Your task to perform on an android device: turn off location history Image 0: 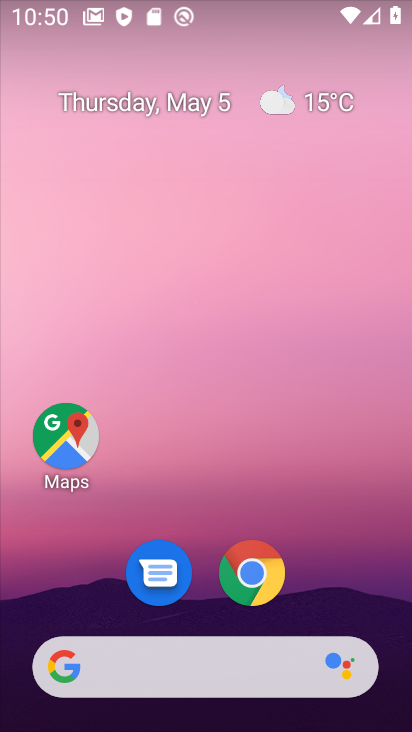
Step 0: drag from (74, 642) to (235, 0)
Your task to perform on an android device: turn off location history Image 1: 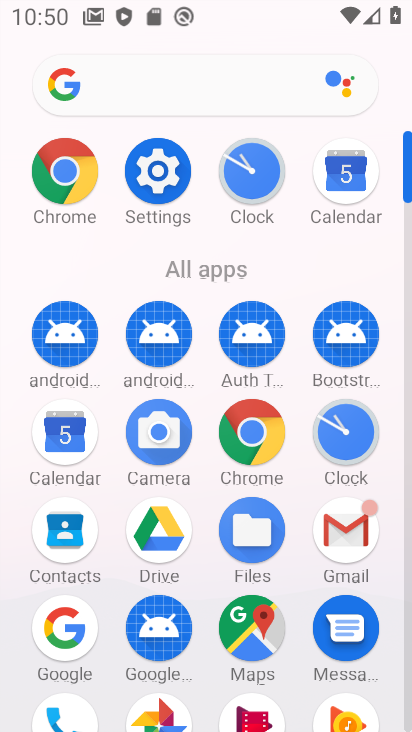
Step 1: drag from (170, 681) to (239, 317)
Your task to perform on an android device: turn off location history Image 2: 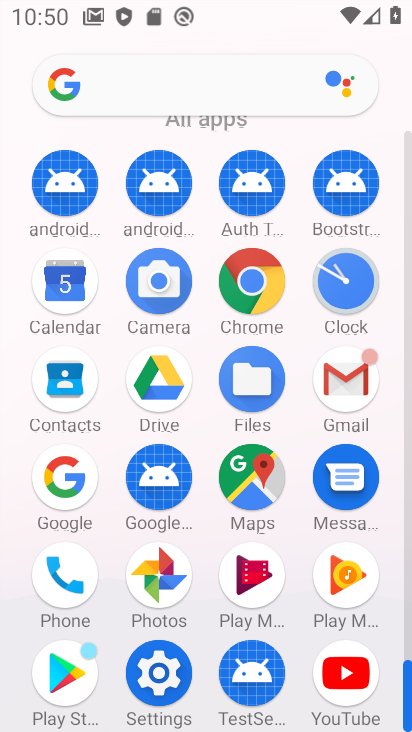
Step 2: click (166, 666)
Your task to perform on an android device: turn off location history Image 3: 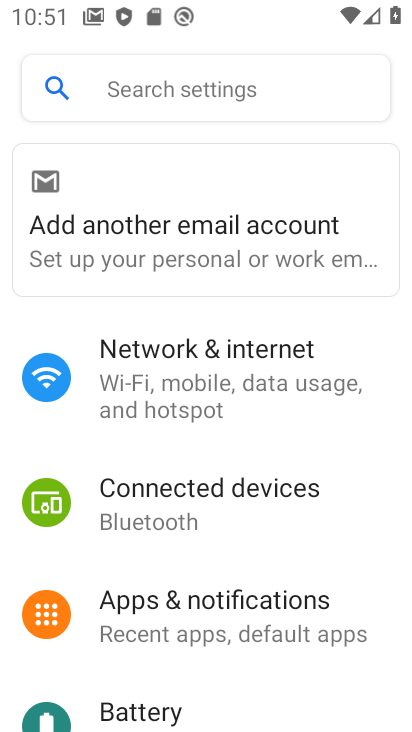
Step 3: drag from (179, 676) to (320, 191)
Your task to perform on an android device: turn off location history Image 4: 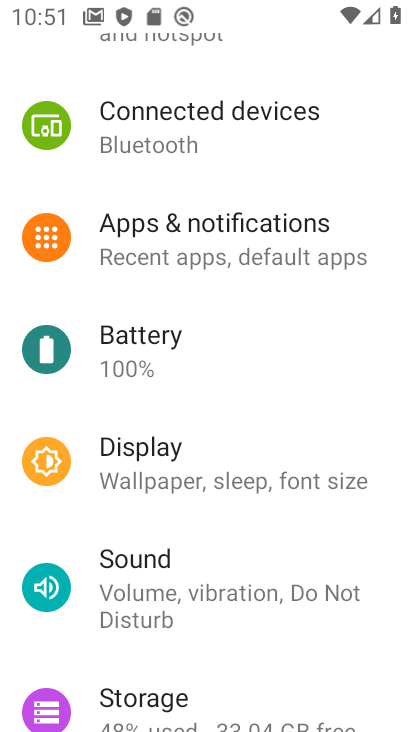
Step 4: drag from (201, 673) to (326, 183)
Your task to perform on an android device: turn off location history Image 5: 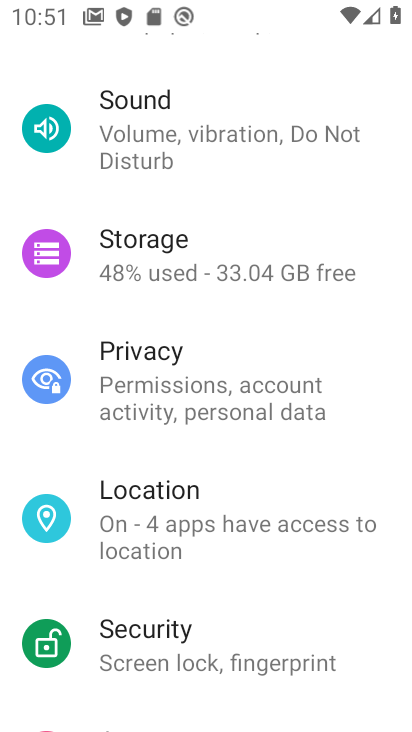
Step 5: click (160, 513)
Your task to perform on an android device: turn off location history Image 6: 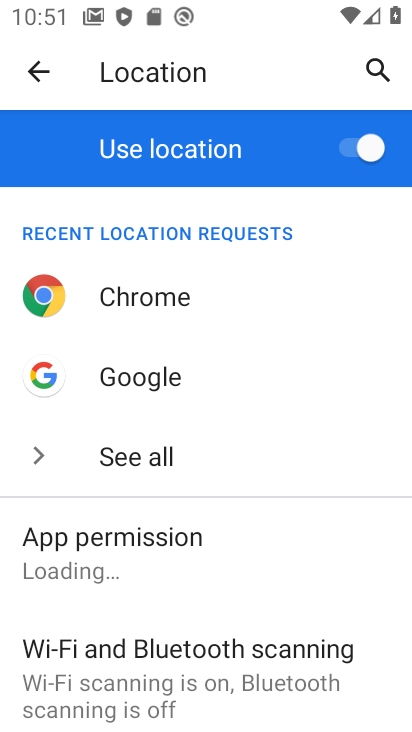
Step 6: drag from (182, 673) to (263, 323)
Your task to perform on an android device: turn off location history Image 7: 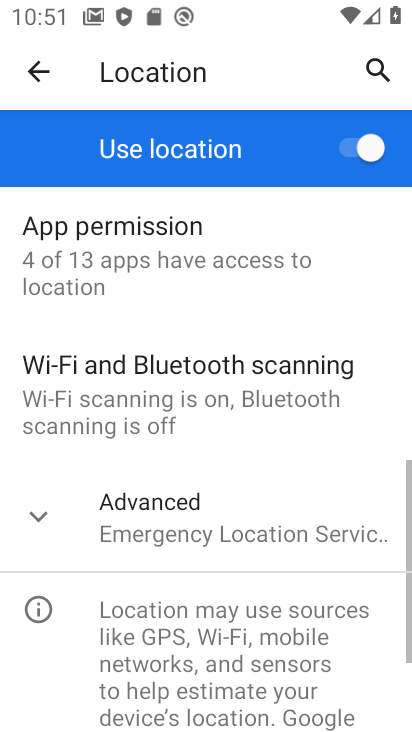
Step 7: click (169, 478)
Your task to perform on an android device: turn off location history Image 8: 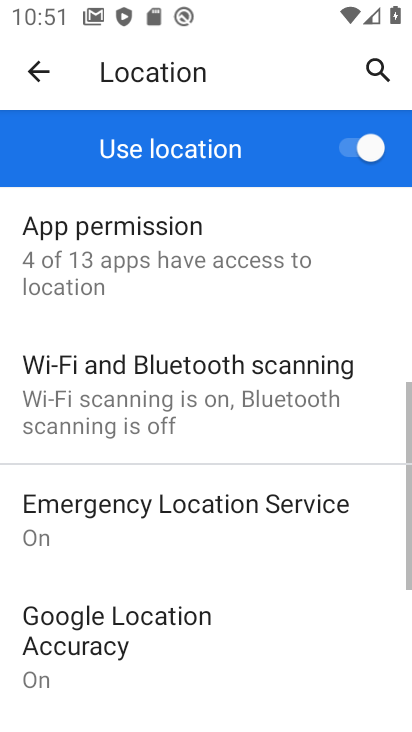
Step 8: drag from (167, 664) to (293, 157)
Your task to perform on an android device: turn off location history Image 9: 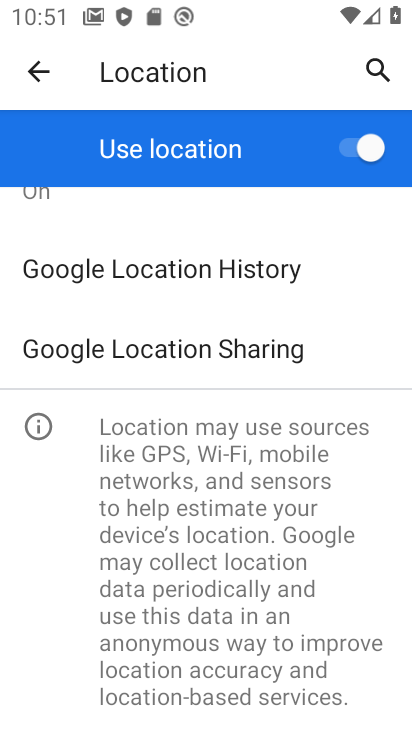
Step 9: click (190, 307)
Your task to perform on an android device: turn off location history Image 10: 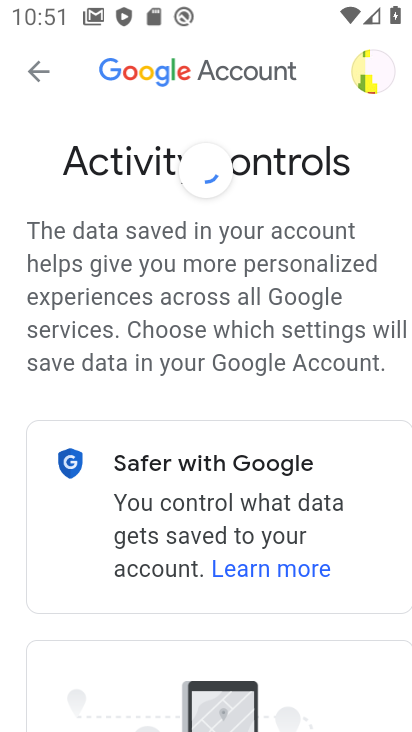
Step 10: task complete